Your task to perform on an android device: Open eBay Image 0: 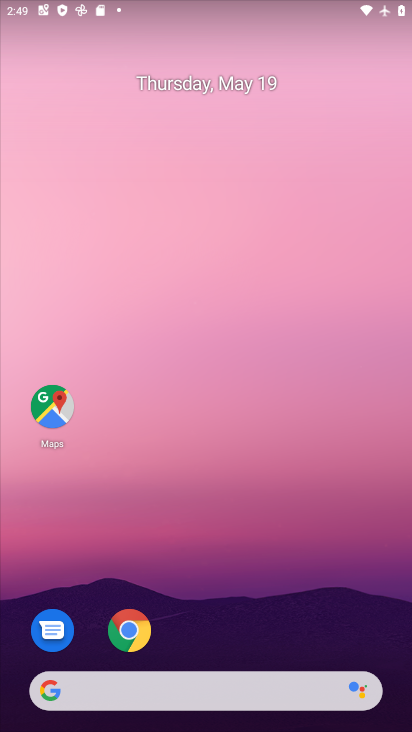
Step 0: click (126, 628)
Your task to perform on an android device: Open eBay Image 1: 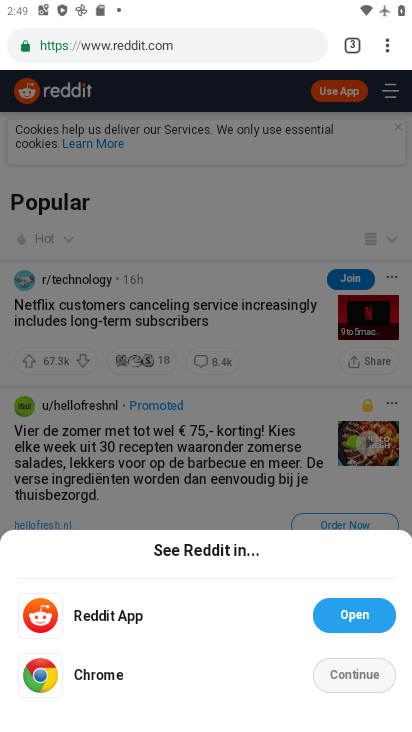
Step 1: click (175, 41)
Your task to perform on an android device: Open eBay Image 2: 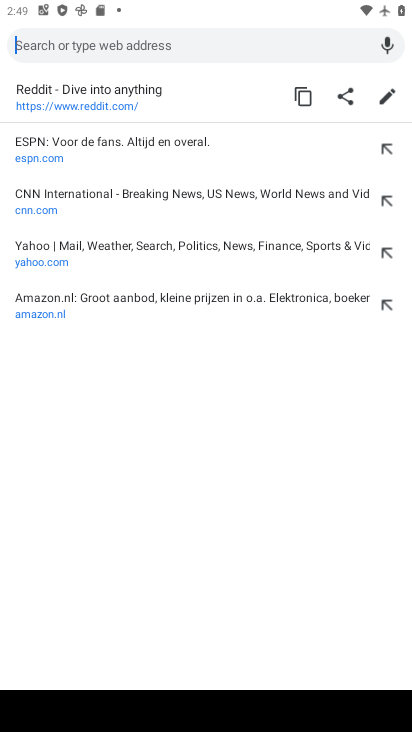
Step 2: type "ebay"
Your task to perform on an android device: Open eBay Image 3: 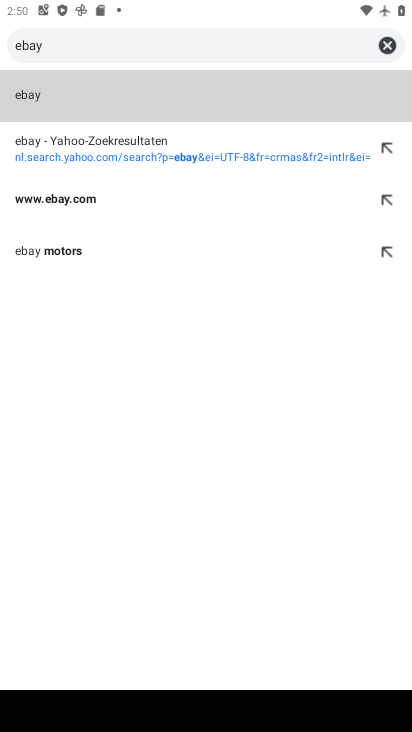
Step 3: click (61, 101)
Your task to perform on an android device: Open eBay Image 4: 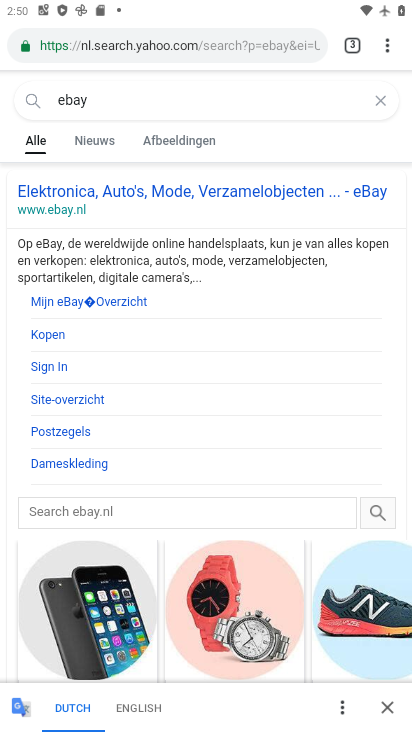
Step 4: click (35, 200)
Your task to perform on an android device: Open eBay Image 5: 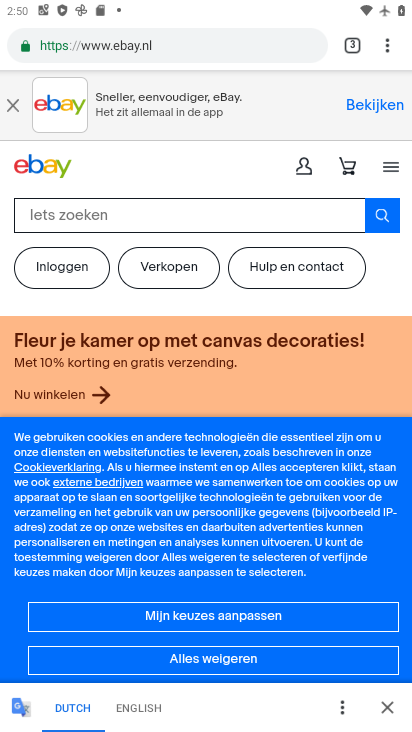
Step 5: task complete